Your task to perform on an android device: turn on the 24-hour format for clock Image 0: 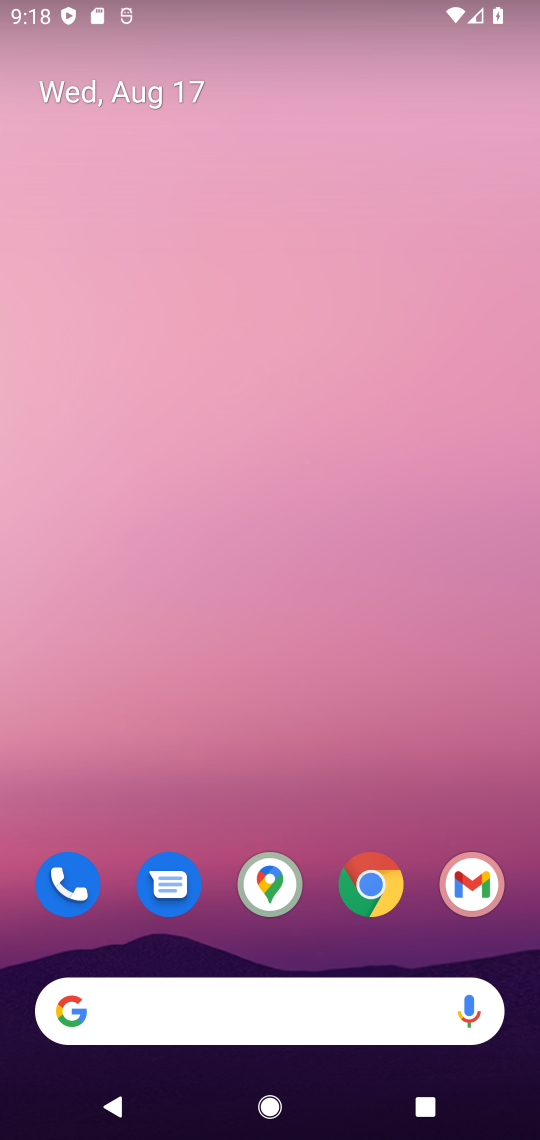
Step 0: drag from (289, 811) to (299, 122)
Your task to perform on an android device: turn on the 24-hour format for clock Image 1: 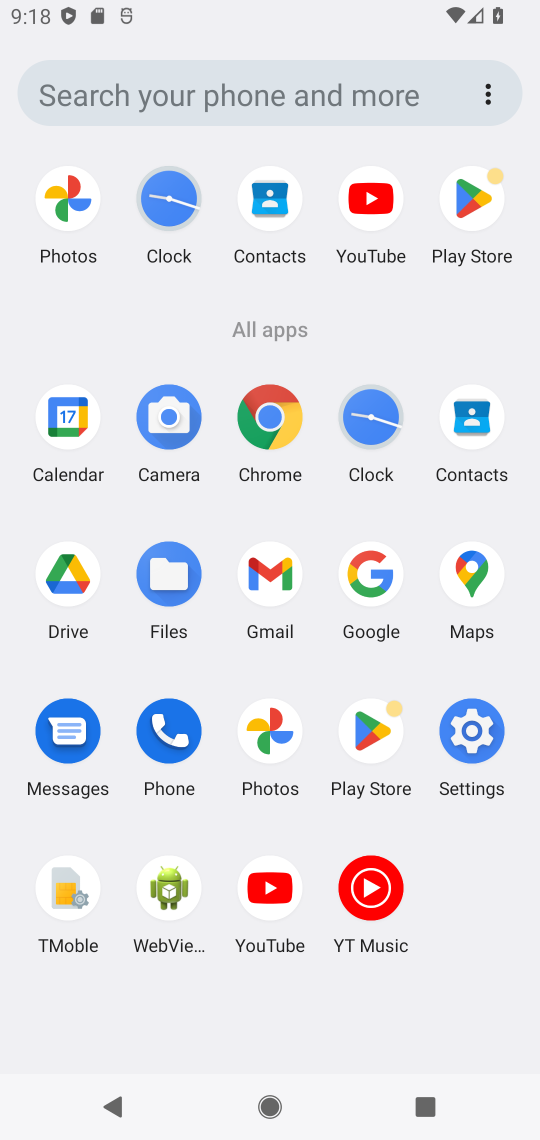
Step 1: click (369, 424)
Your task to perform on an android device: turn on the 24-hour format for clock Image 2: 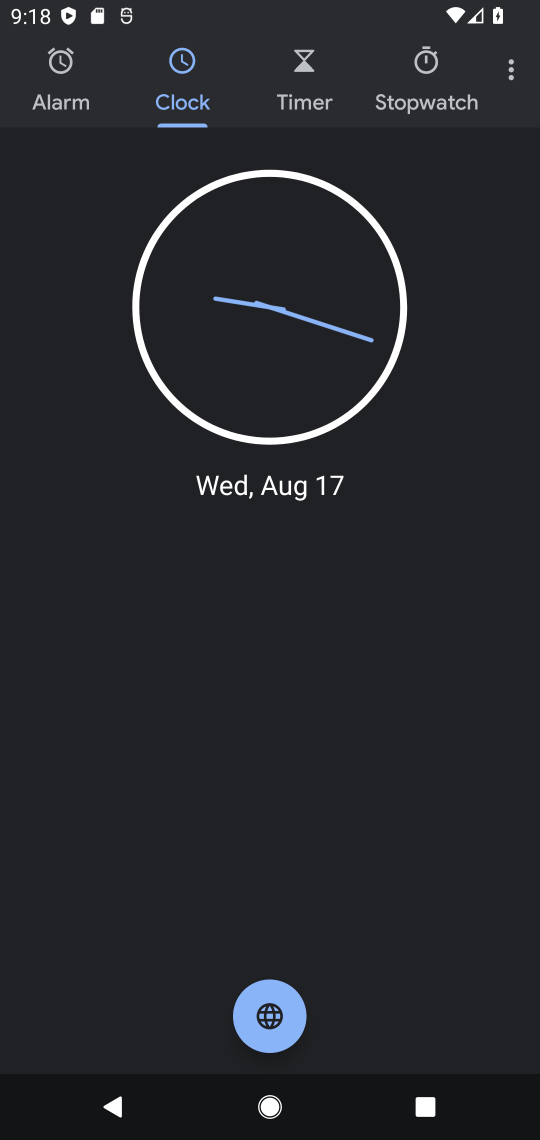
Step 2: click (510, 64)
Your task to perform on an android device: turn on the 24-hour format for clock Image 3: 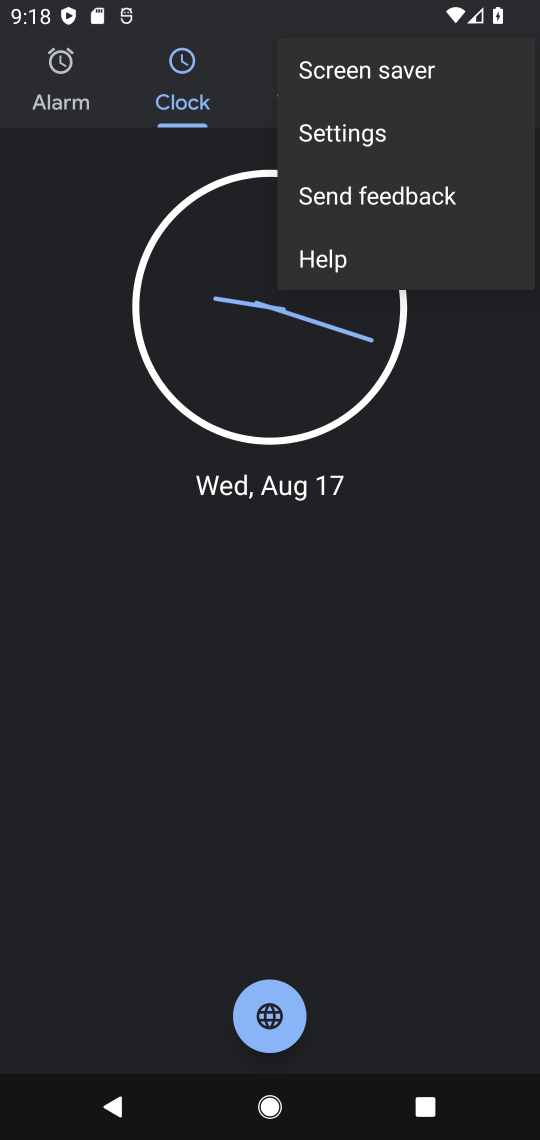
Step 3: click (464, 140)
Your task to perform on an android device: turn on the 24-hour format for clock Image 4: 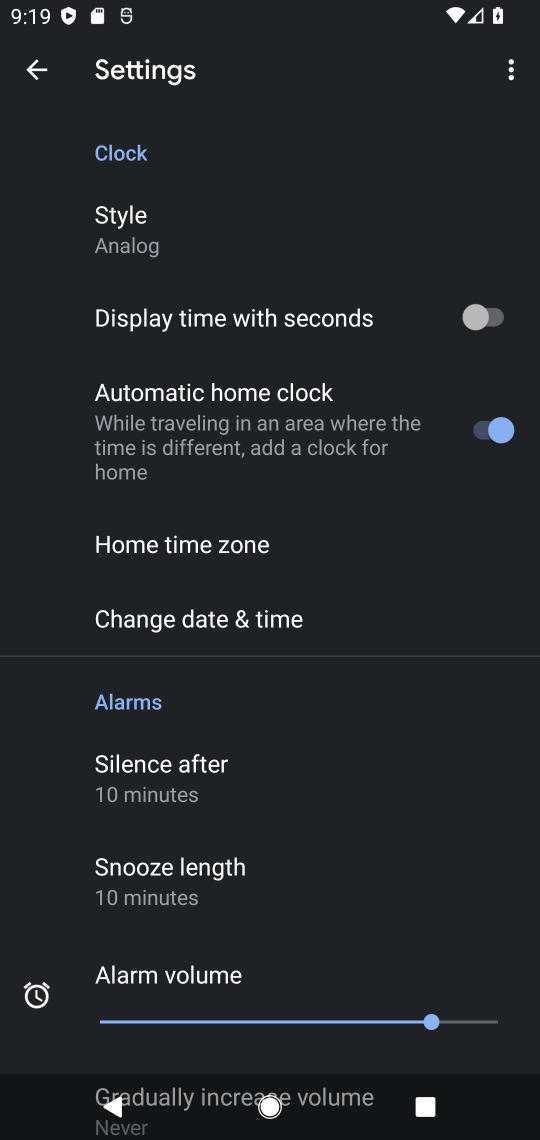
Step 4: drag from (289, 922) to (208, 342)
Your task to perform on an android device: turn on the 24-hour format for clock Image 5: 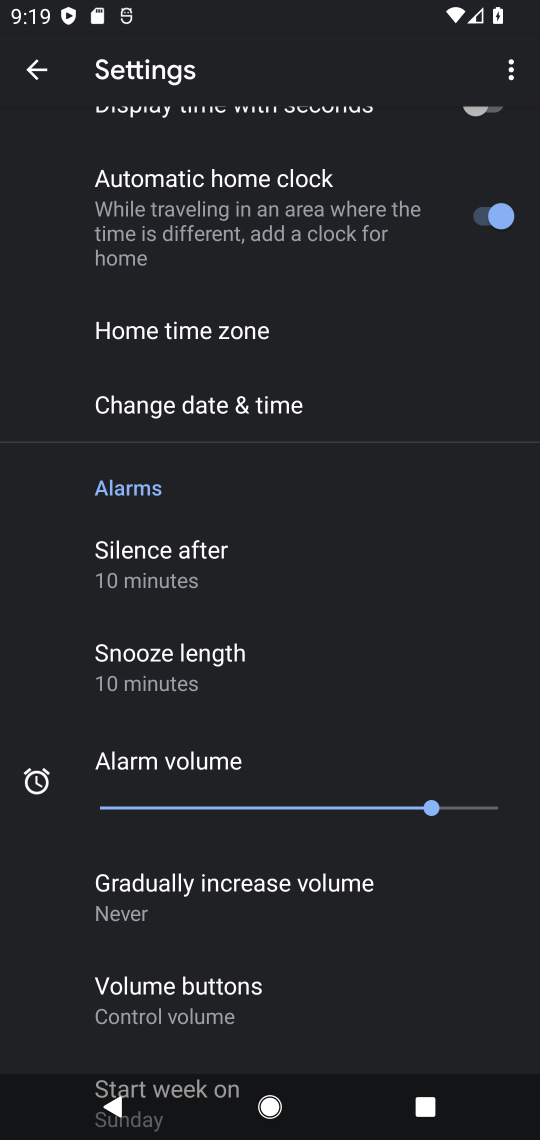
Step 5: click (198, 400)
Your task to perform on an android device: turn on the 24-hour format for clock Image 6: 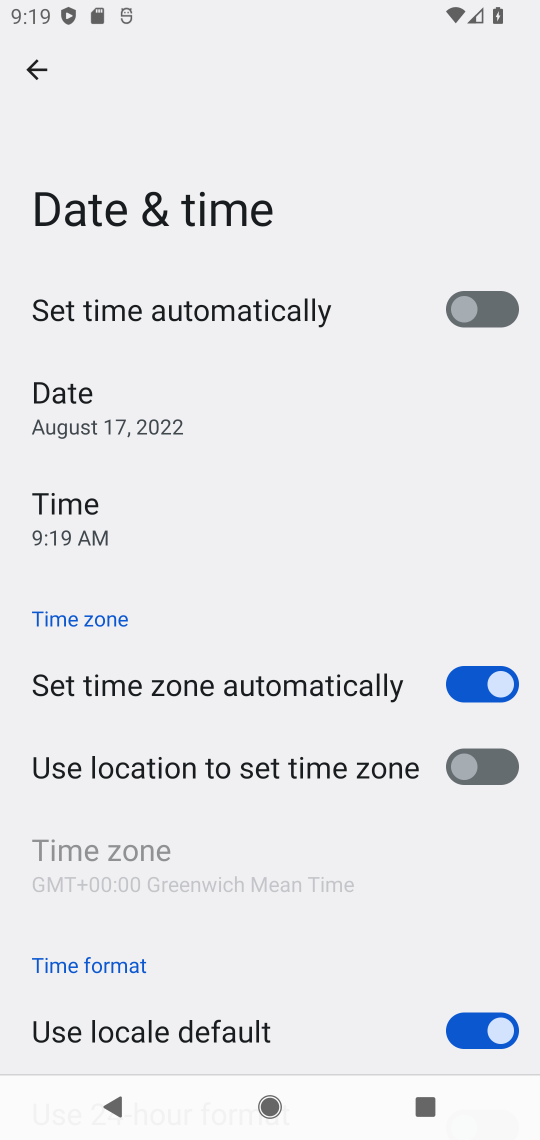
Step 6: drag from (354, 771) to (352, 342)
Your task to perform on an android device: turn on the 24-hour format for clock Image 7: 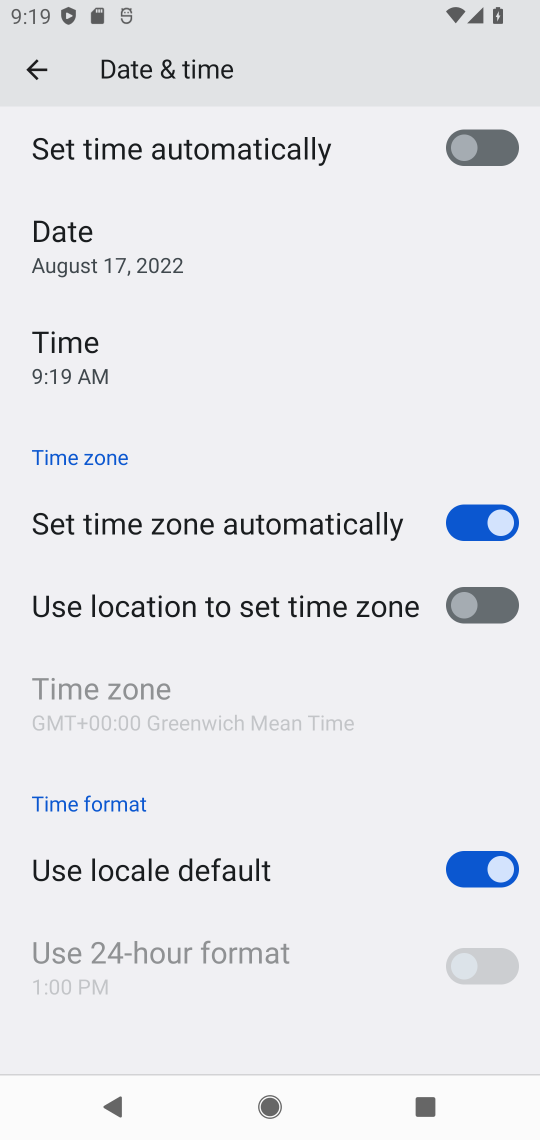
Step 7: drag from (342, 797) to (342, 319)
Your task to perform on an android device: turn on the 24-hour format for clock Image 8: 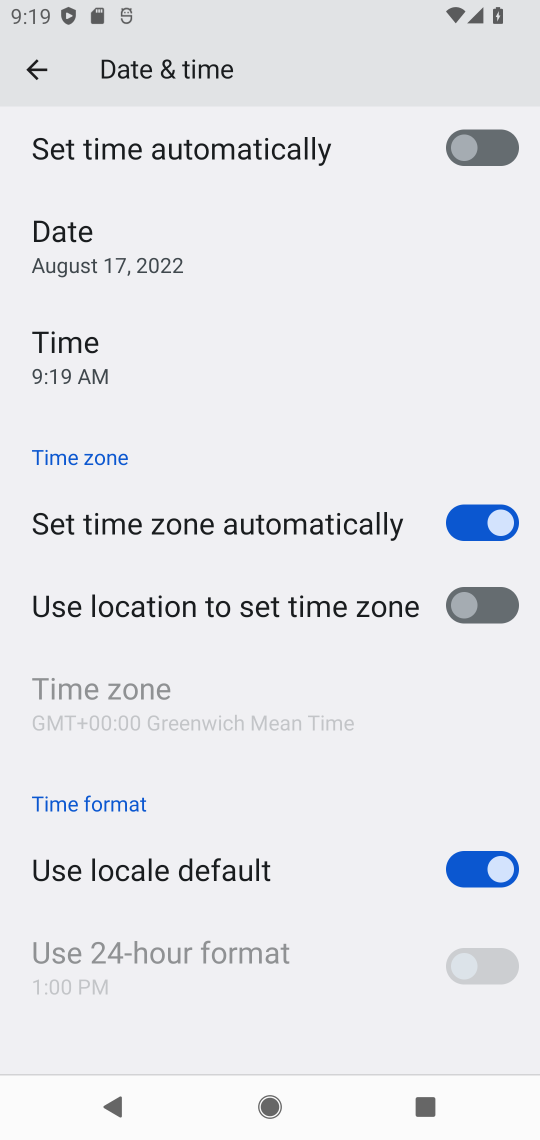
Step 8: drag from (319, 775) to (287, 345)
Your task to perform on an android device: turn on the 24-hour format for clock Image 9: 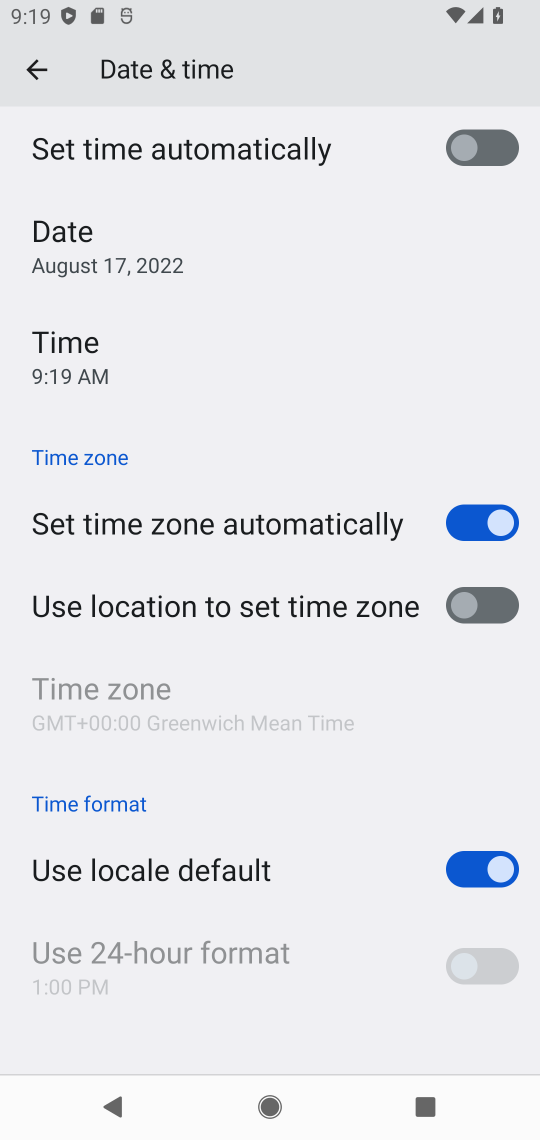
Step 9: drag from (267, 398) to (339, 828)
Your task to perform on an android device: turn on the 24-hour format for clock Image 10: 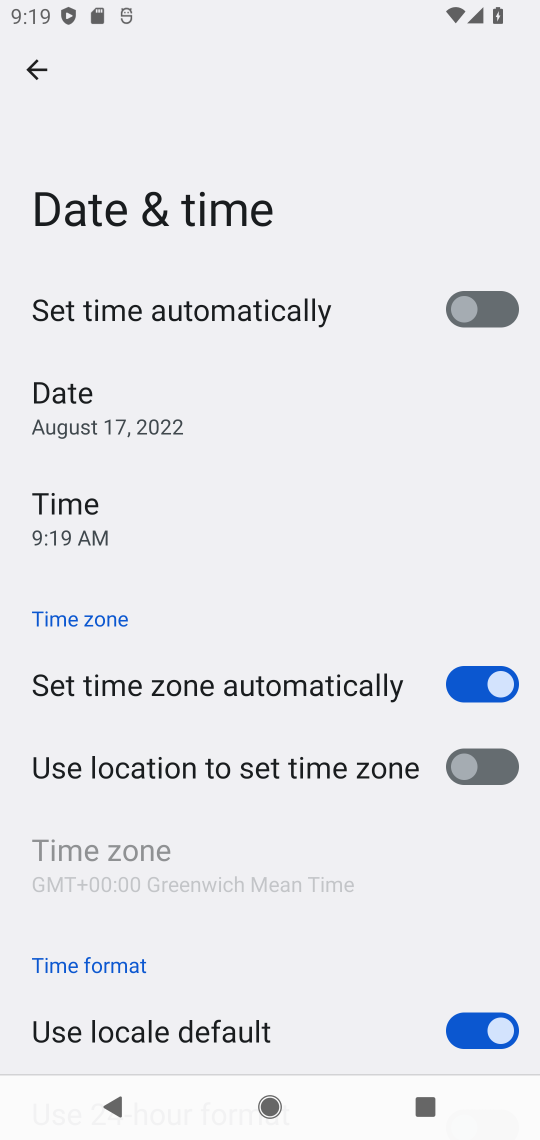
Step 10: drag from (344, 896) to (333, 365)
Your task to perform on an android device: turn on the 24-hour format for clock Image 11: 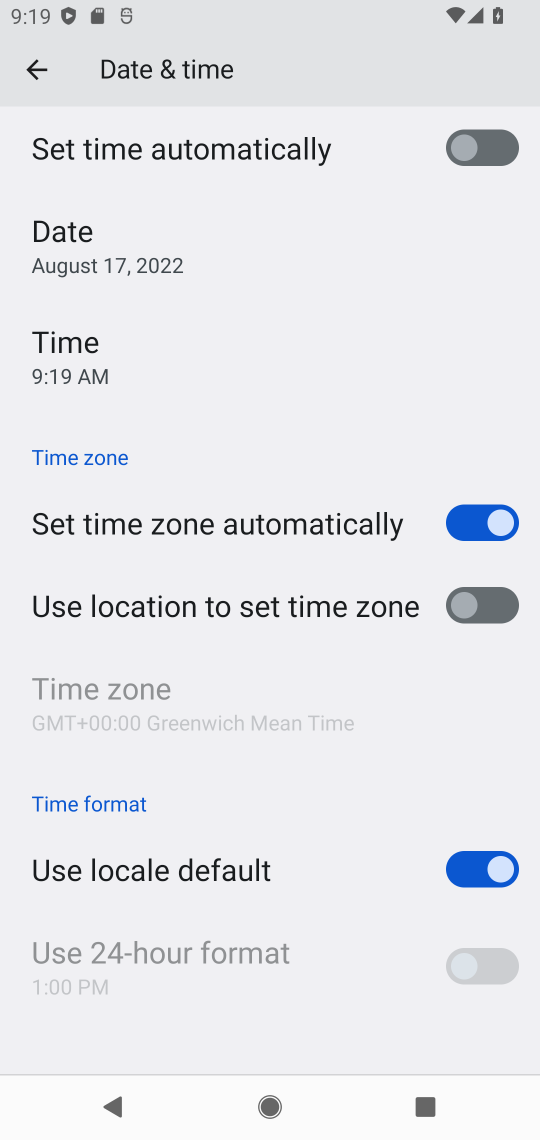
Step 11: drag from (292, 788) to (334, 321)
Your task to perform on an android device: turn on the 24-hour format for clock Image 12: 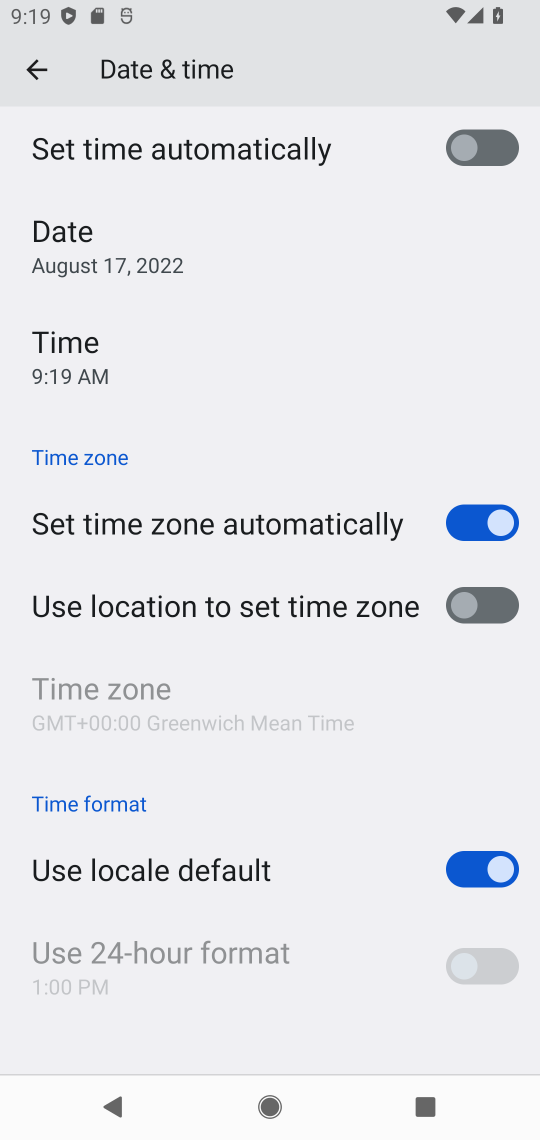
Step 12: click (366, 690)
Your task to perform on an android device: turn on the 24-hour format for clock Image 13: 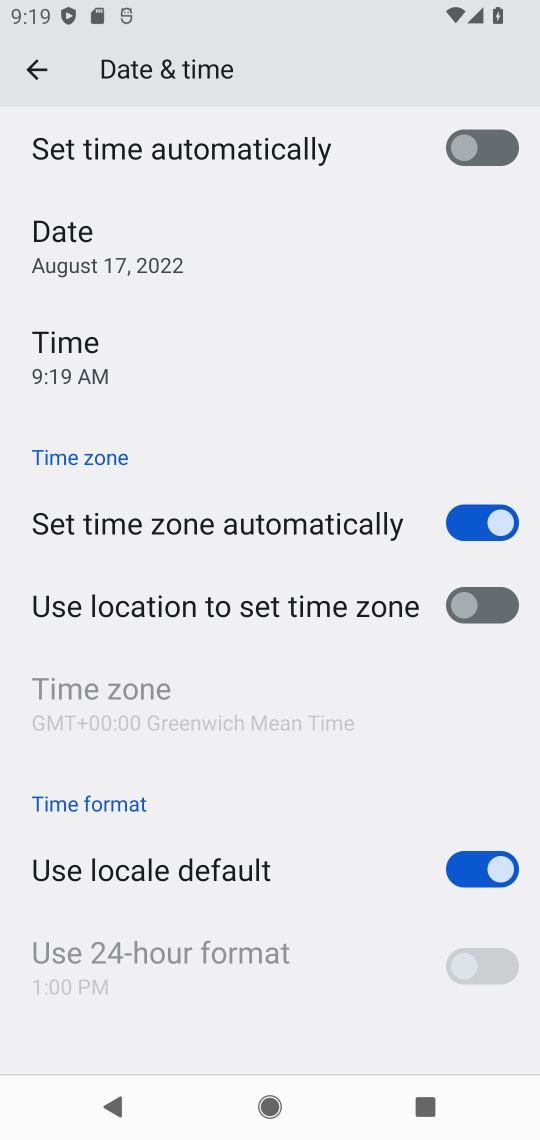
Step 13: click (458, 859)
Your task to perform on an android device: turn on the 24-hour format for clock Image 14: 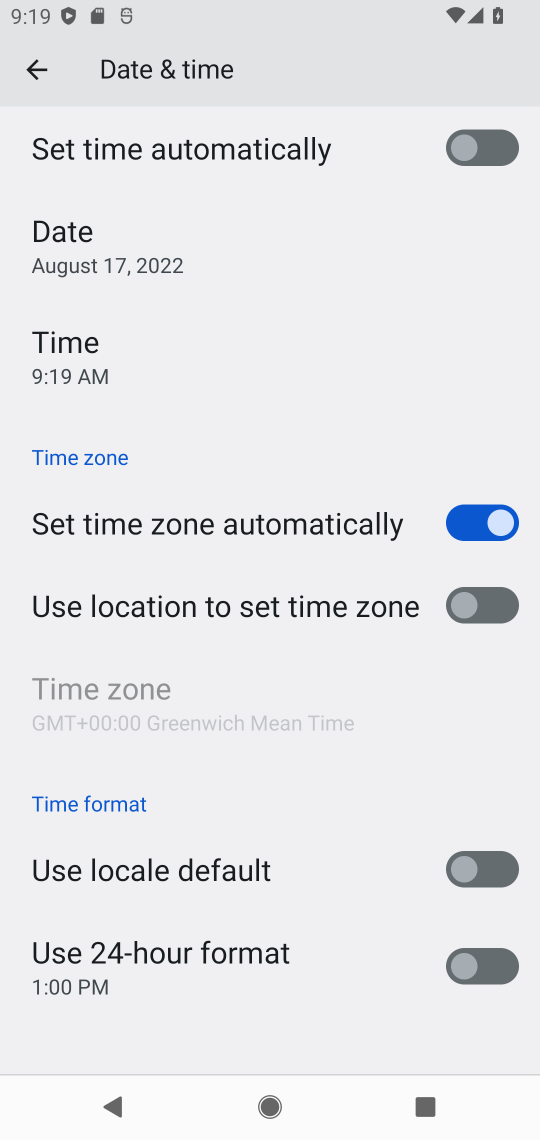
Step 14: click (506, 964)
Your task to perform on an android device: turn on the 24-hour format for clock Image 15: 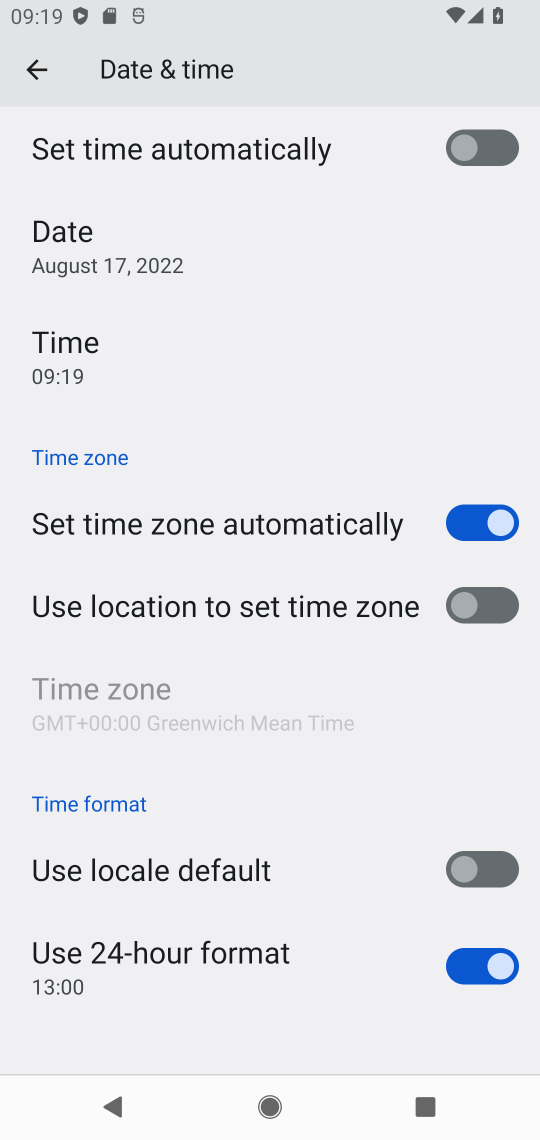
Step 15: task complete